Your task to perform on an android device: Do I have any events this weekend? Image 0: 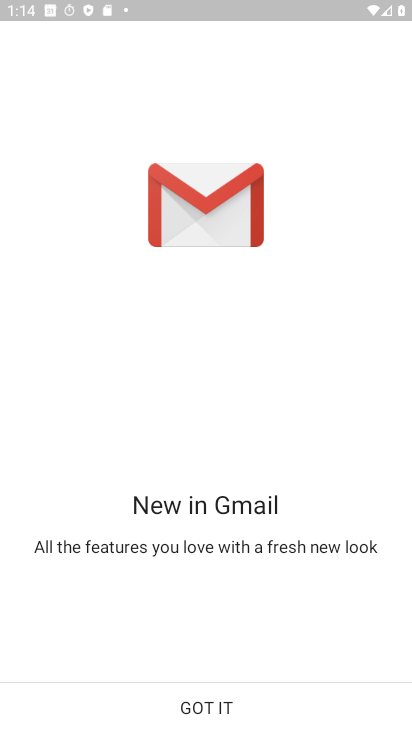
Step 0: press home button
Your task to perform on an android device: Do I have any events this weekend? Image 1: 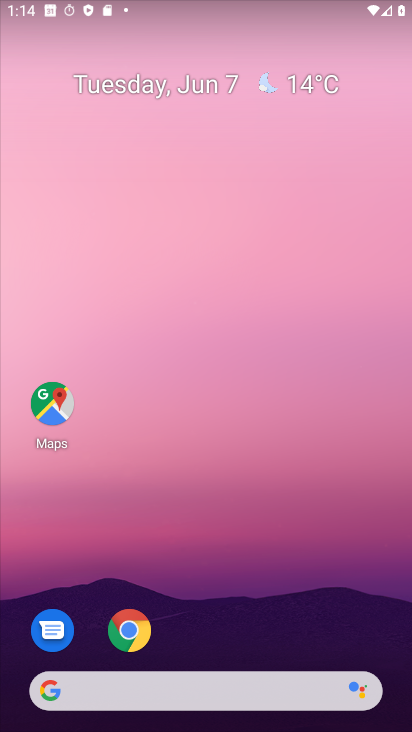
Step 1: drag from (200, 595) to (232, 139)
Your task to perform on an android device: Do I have any events this weekend? Image 2: 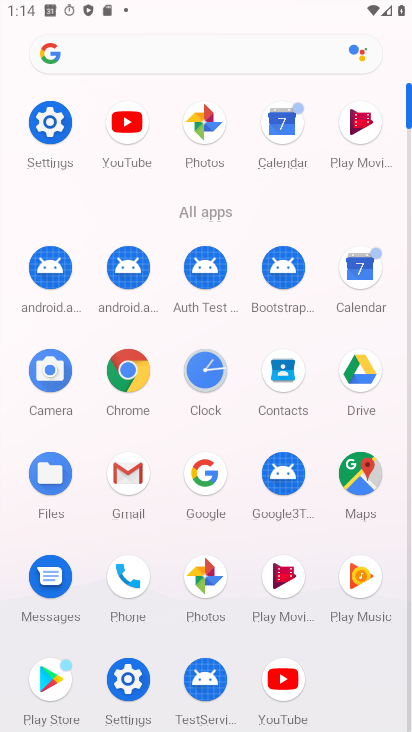
Step 2: click (359, 276)
Your task to perform on an android device: Do I have any events this weekend? Image 3: 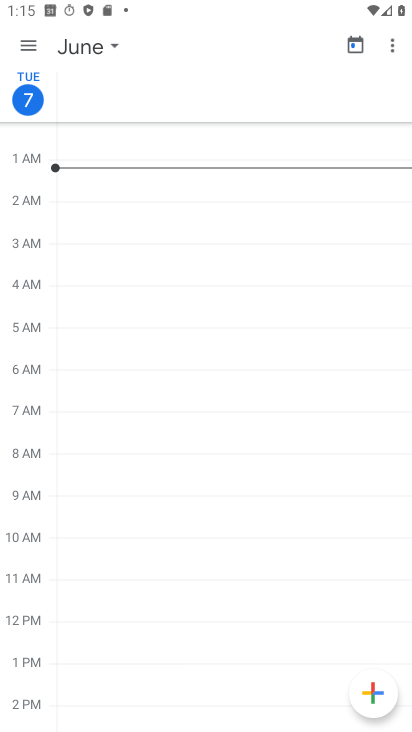
Step 3: click (27, 46)
Your task to perform on an android device: Do I have any events this weekend? Image 4: 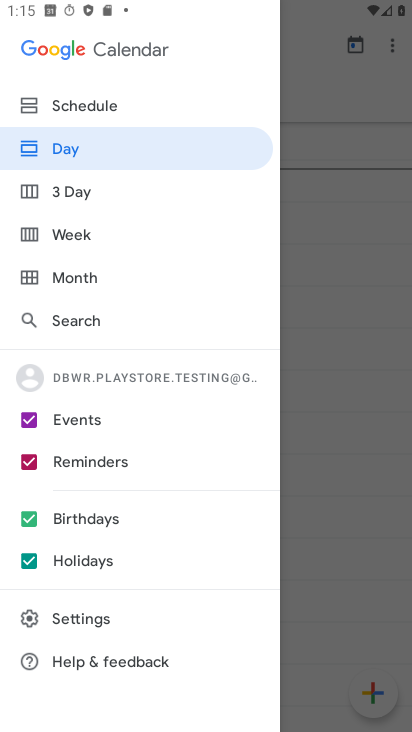
Step 4: click (76, 240)
Your task to perform on an android device: Do I have any events this weekend? Image 5: 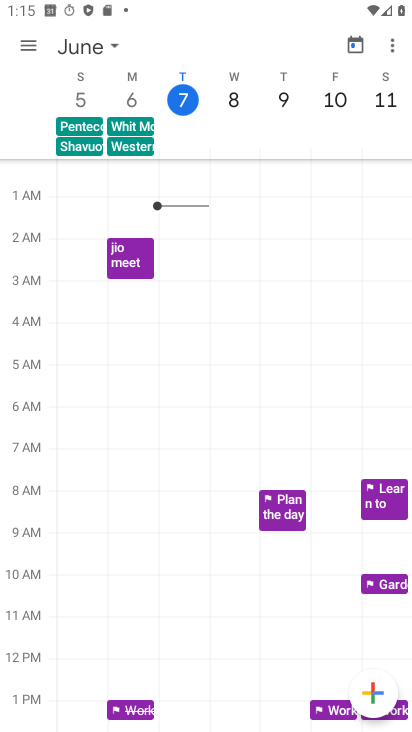
Step 5: click (33, 47)
Your task to perform on an android device: Do I have any events this weekend? Image 6: 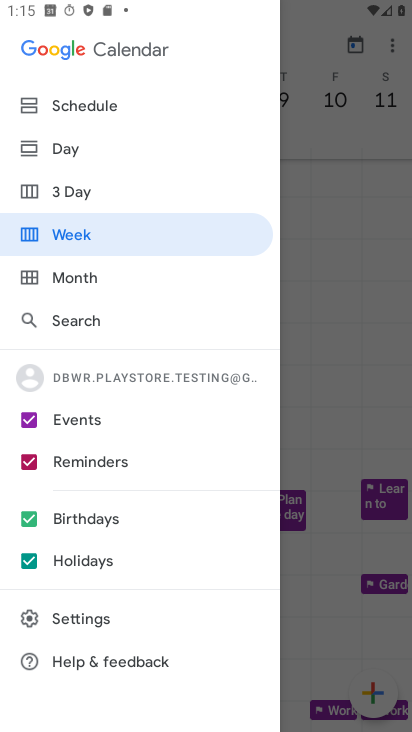
Step 6: click (80, 562)
Your task to perform on an android device: Do I have any events this weekend? Image 7: 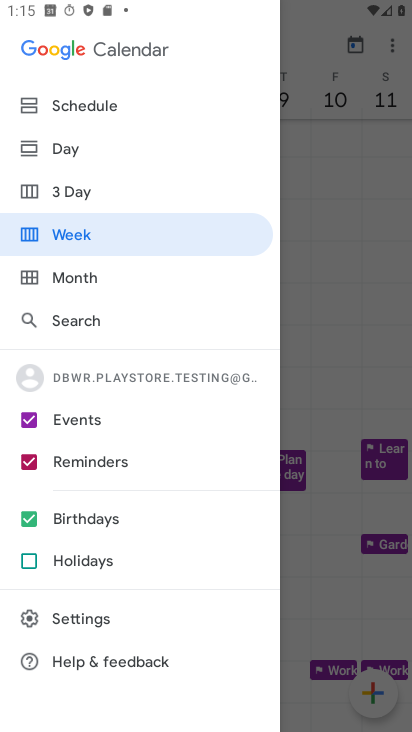
Step 7: click (87, 518)
Your task to perform on an android device: Do I have any events this weekend? Image 8: 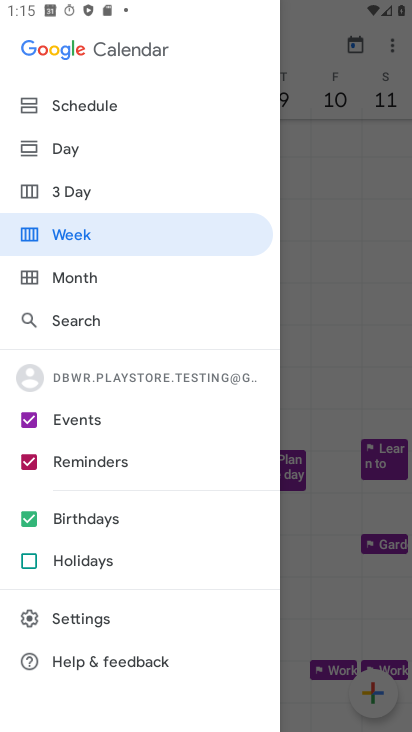
Step 8: click (331, 309)
Your task to perform on an android device: Do I have any events this weekend? Image 9: 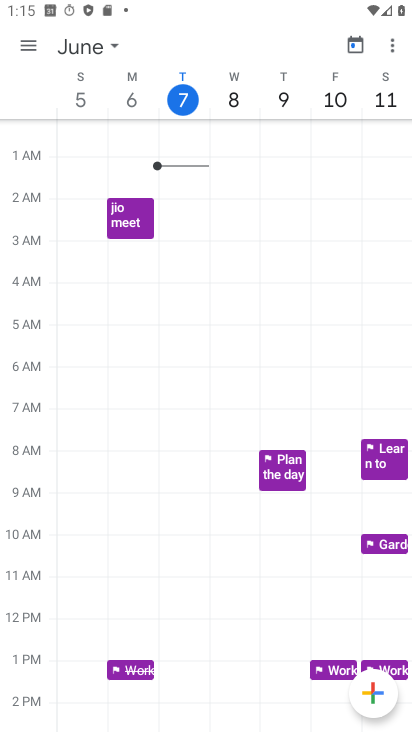
Step 9: task complete